Your task to perform on an android device: Go to Android settings Image 0: 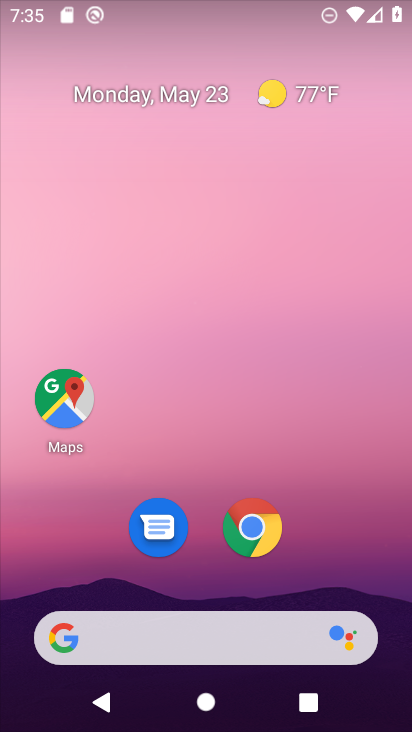
Step 0: press home button
Your task to perform on an android device: Go to Android settings Image 1: 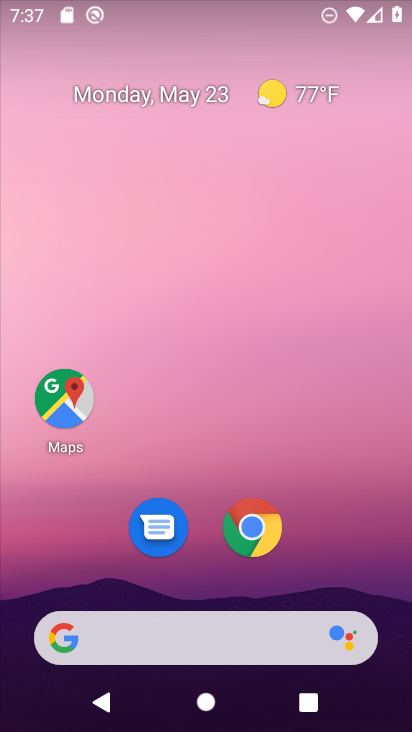
Step 1: drag from (262, 669) to (156, 334)
Your task to perform on an android device: Go to Android settings Image 2: 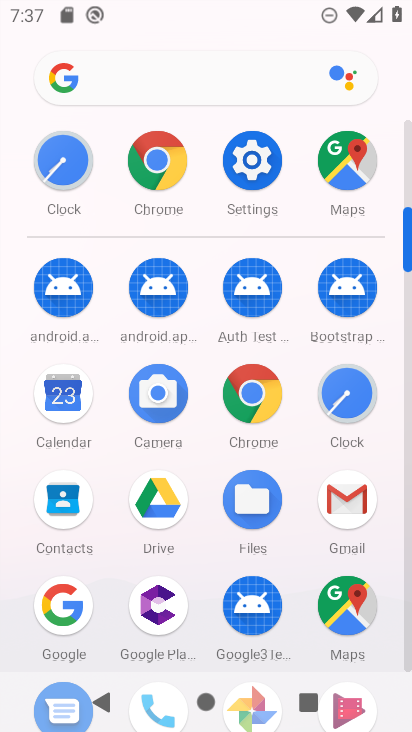
Step 2: click (259, 169)
Your task to perform on an android device: Go to Android settings Image 3: 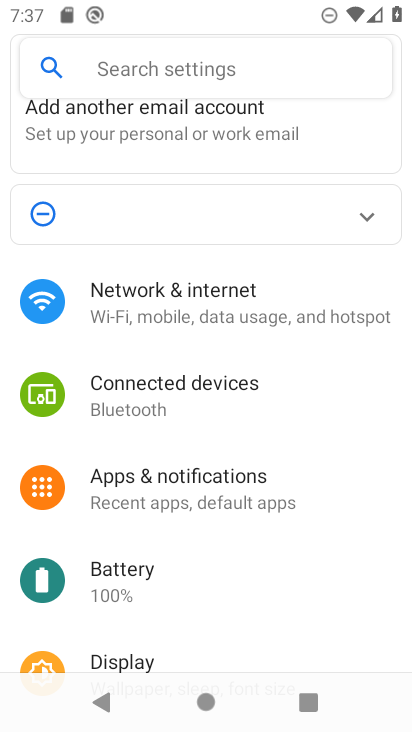
Step 3: click (164, 65)
Your task to perform on an android device: Go to Android settings Image 4: 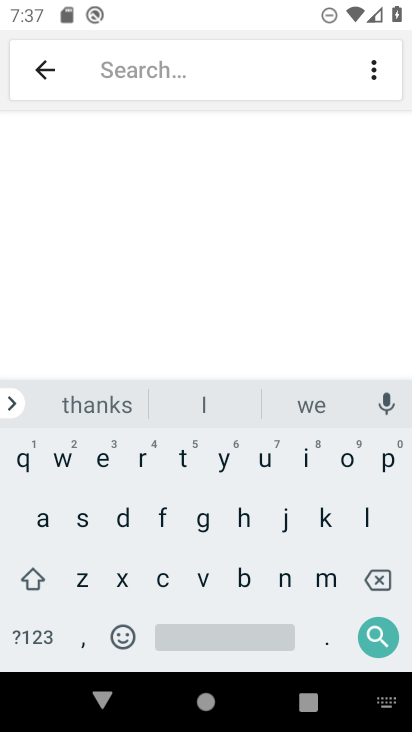
Step 4: click (37, 513)
Your task to perform on an android device: Go to Android settings Image 5: 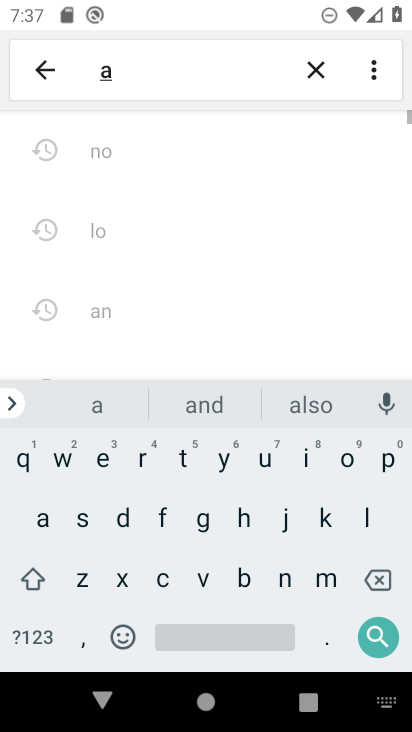
Step 5: click (287, 578)
Your task to perform on an android device: Go to Android settings Image 6: 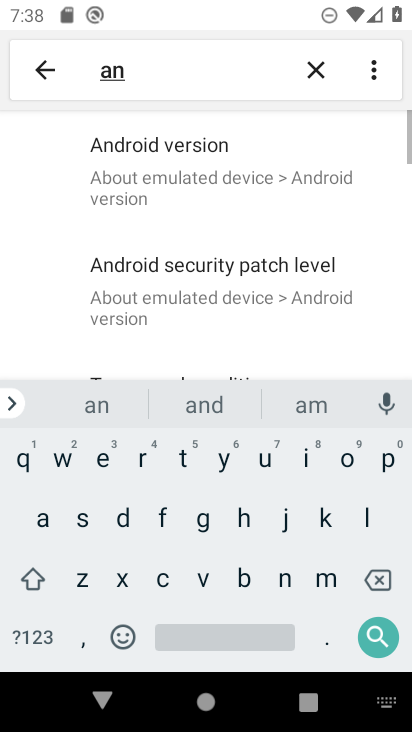
Step 6: click (229, 166)
Your task to perform on an android device: Go to Android settings Image 7: 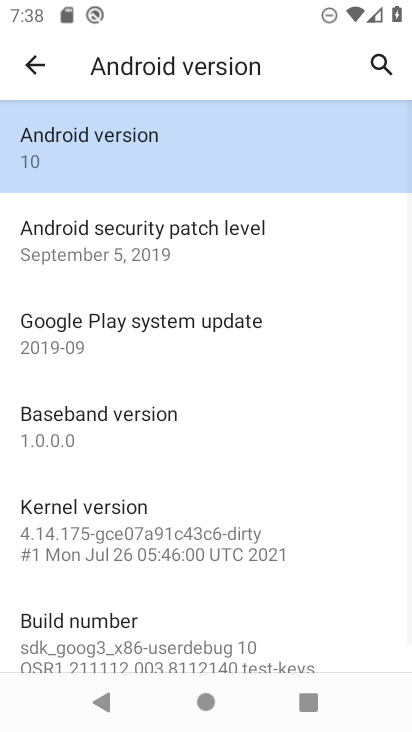
Step 7: task complete